Your task to perform on an android device: How much does a3 bedroom apartment rent for in Portland? Image 0: 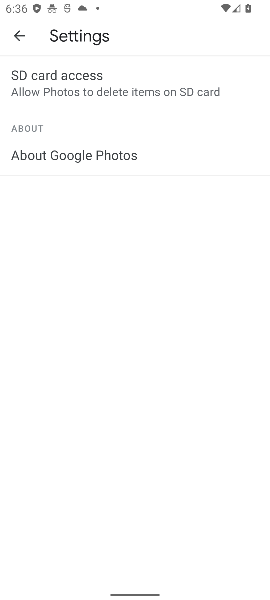
Step 0: press home button
Your task to perform on an android device: How much does a3 bedroom apartment rent for in Portland? Image 1: 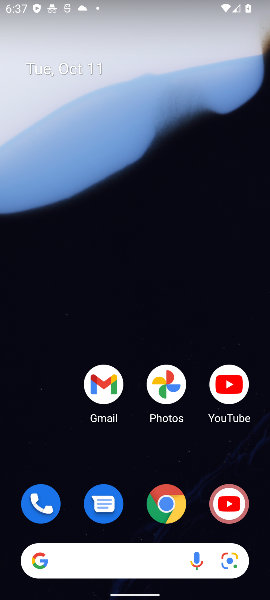
Step 1: click (101, 559)
Your task to perform on an android device: How much does a3 bedroom apartment rent for in Portland? Image 2: 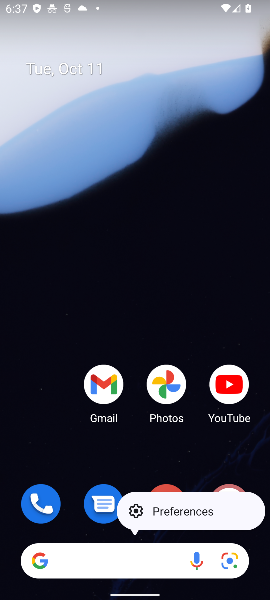
Step 2: click (97, 562)
Your task to perform on an android device: How much does a3 bedroom apartment rent for in Portland? Image 3: 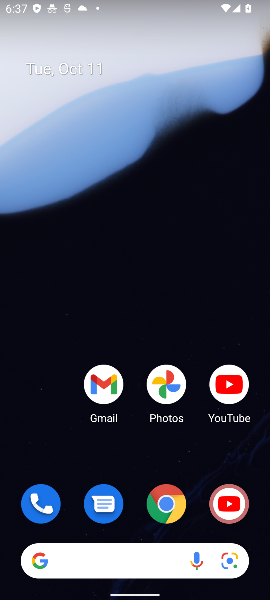
Step 3: click (93, 559)
Your task to perform on an android device: How much does a3 bedroom apartment rent for in Portland? Image 4: 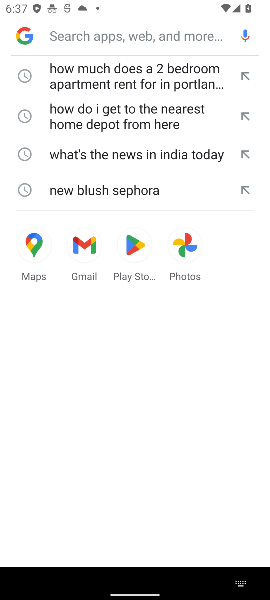
Step 4: click (73, 35)
Your task to perform on an android device: How much does a3 bedroom apartment rent for in Portland? Image 5: 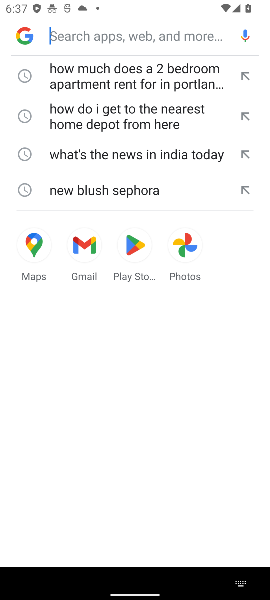
Step 5: click (168, 87)
Your task to perform on an android device: How much does a3 bedroom apartment rent for in Portland? Image 6: 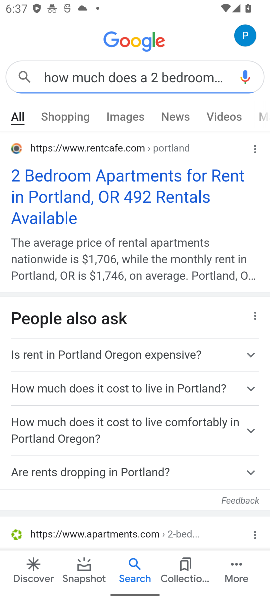
Step 6: task complete